Your task to perform on an android device: Open Google Chrome and open the bookmarks view Image 0: 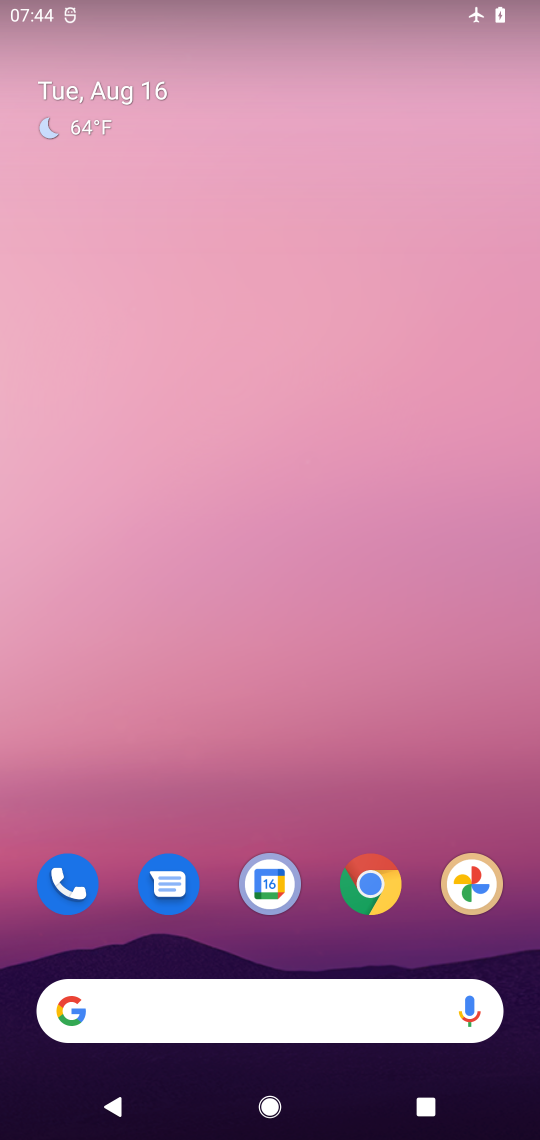
Step 0: press home button
Your task to perform on an android device: Open Google Chrome and open the bookmarks view Image 1: 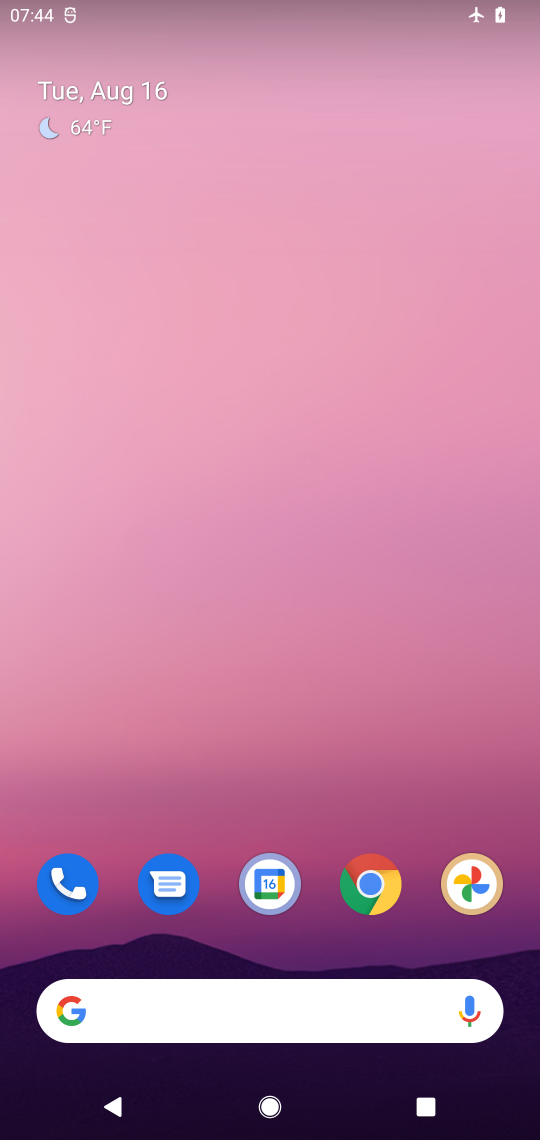
Step 1: click (370, 888)
Your task to perform on an android device: Open Google Chrome and open the bookmarks view Image 2: 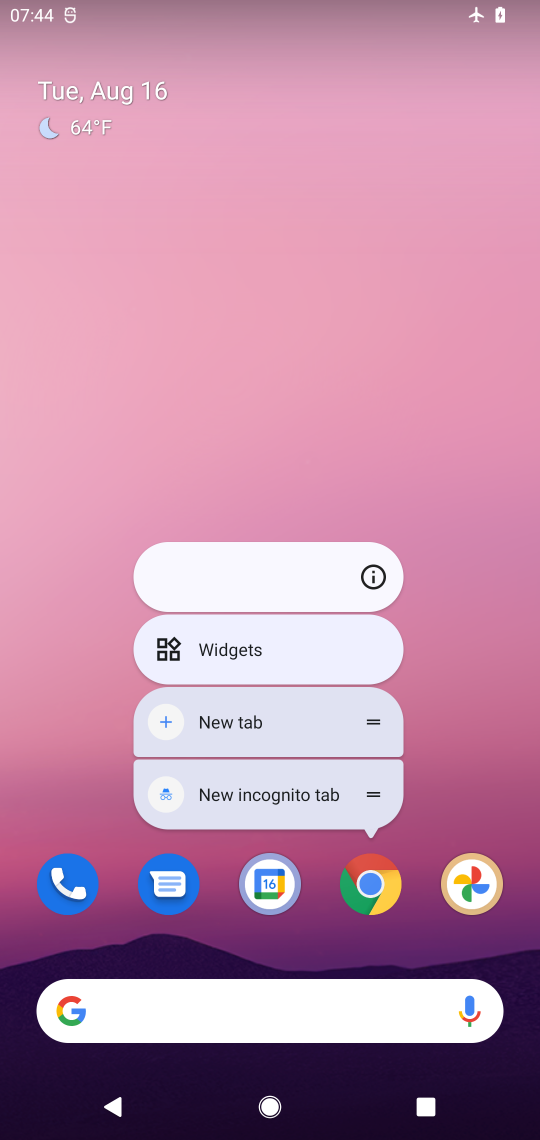
Step 2: click (370, 888)
Your task to perform on an android device: Open Google Chrome and open the bookmarks view Image 3: 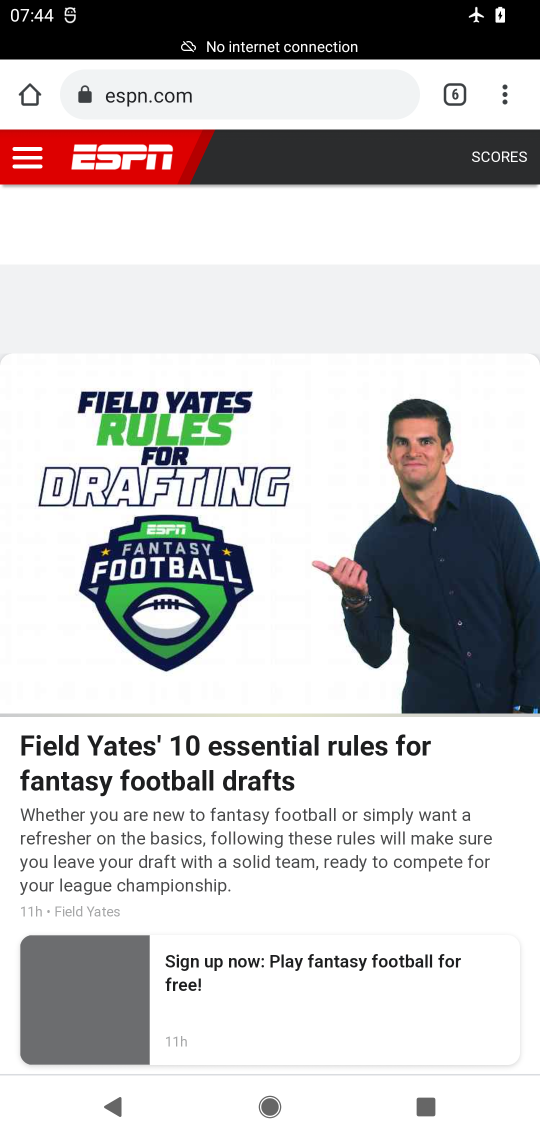
Step 3: task complete